Your task to perform on an android device: Open Yahoo.com Image 0: 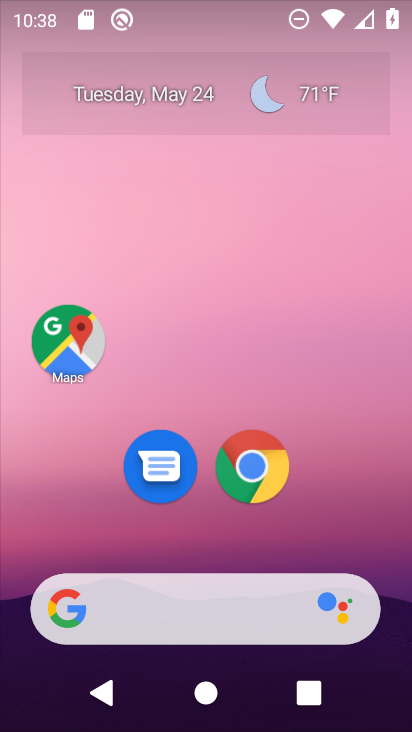
Step 0: click (262, 1)
Your task to perform on an android device: Open Yahoo.com Image 1: 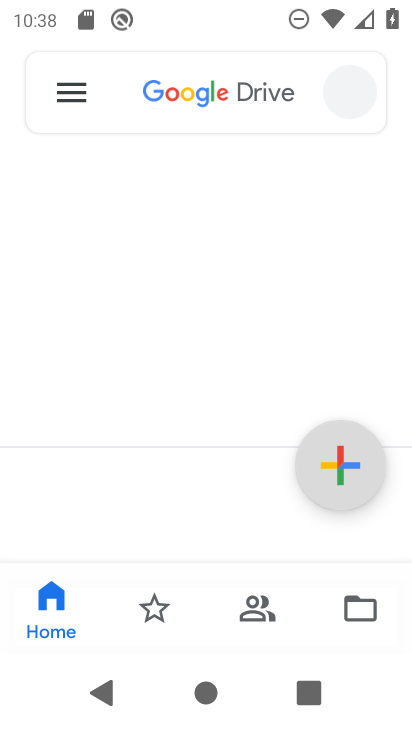
Step 1: drag from (192, 542) to (287, 23)
Your task to perform on an android device: Open Yahoo.com Image 2: 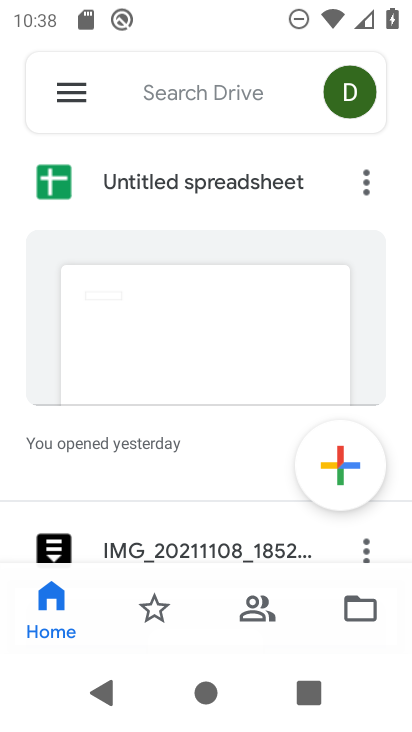
Step 2: press home button
Your task to perform on an android device: Open Yahoo.com Image 3: 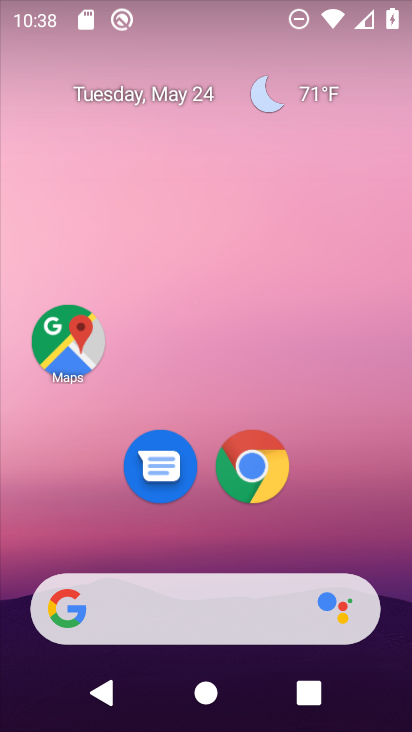
Step 3: click (247, 475)
Your task to perform on an android device: Open Yahoo.com Image 4: 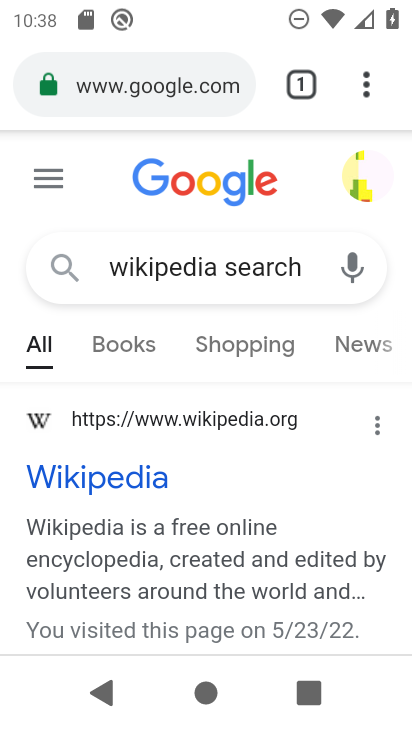
Step 4: click (191, 88)
Your task to perform on an android device: Open Yahoo.com Image 5: 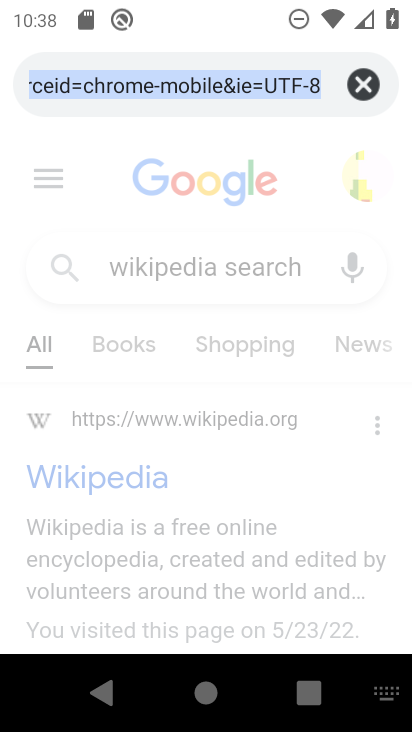
Step 5: type "yahoo.com"
Your task to perform on an android device: Open Yahoo.com Image 6: 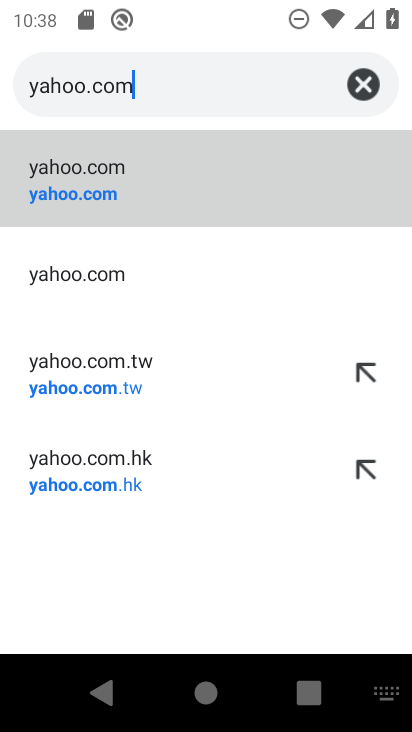
Step 6: click (99, 197)
Your task to perform on an android device: Open Yahoo.com Image 7: 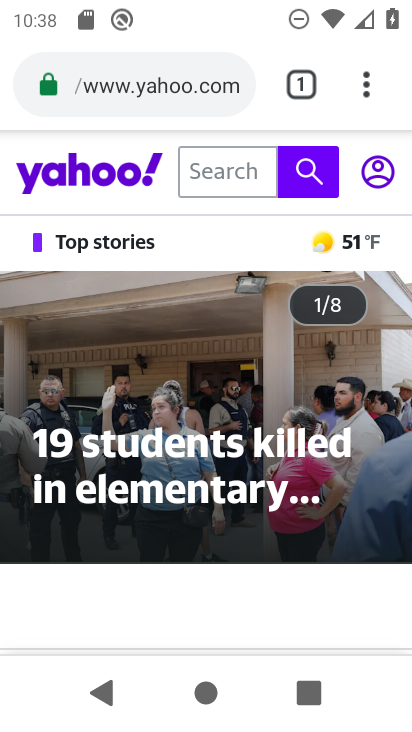
Step 7: task complete